Your task to perform on an android device: Search for seafood restaurants on Google Maps Image 0: 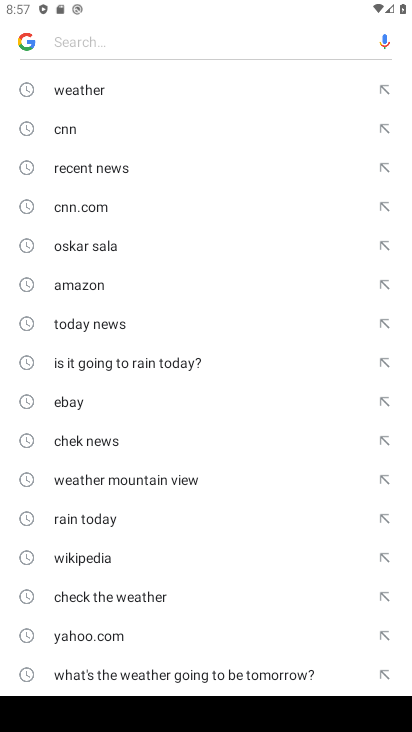
Step 0: press back button
Your task to perform on an android device: Search for seafood restaurants on Google Maps Image 1: 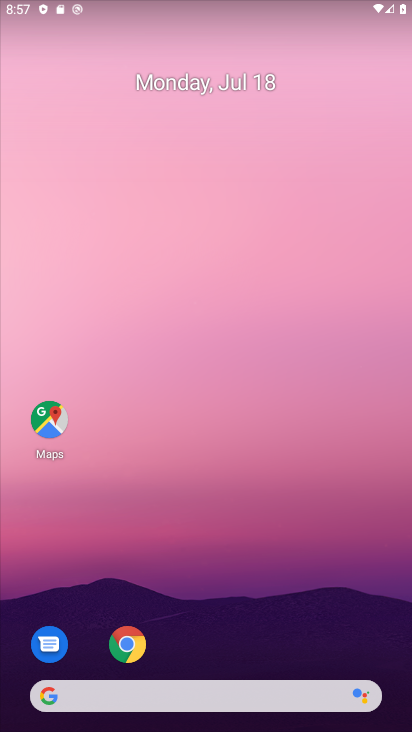
Step 1: click (49, 420)
Your task to perform on an android device: Search for seafood restaurants on Google Maps Image 2: 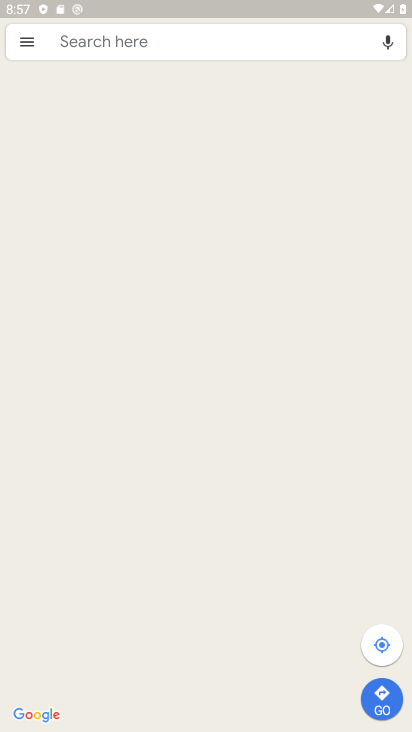
Step 2: click (133, 43)
Your task to perform on an android device: Search for seafood restaurants on Google Maps Image 3: 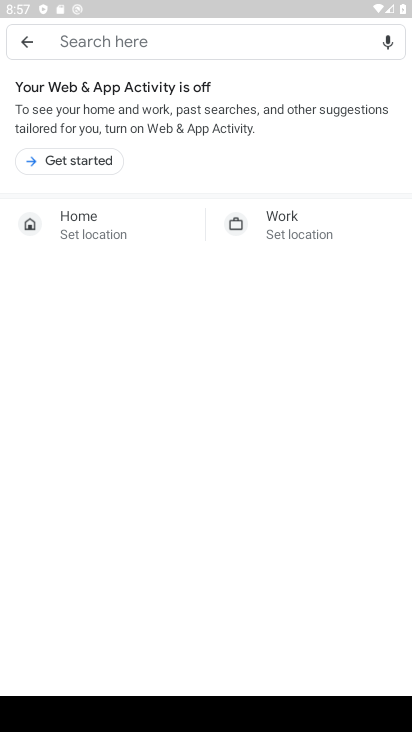
Step 3: click (125, 34)
Your task to perform on an android device: Search for seafood restaurants on Google Maps Image 4: 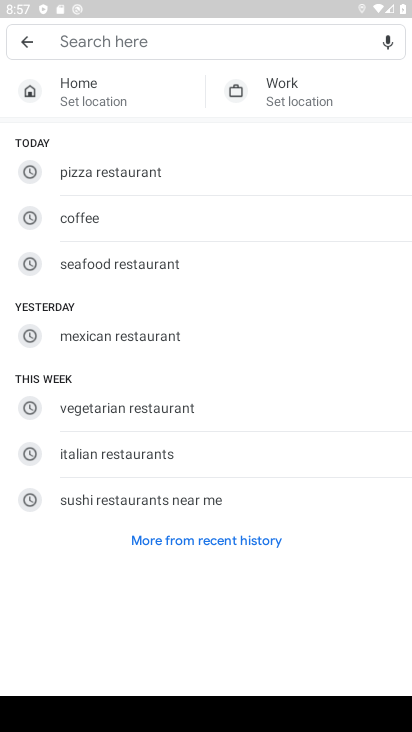
Step 4: type "seafood restau"
Your task to perform on an android device: Search for seafood restaurants on Google Maps Image 5: 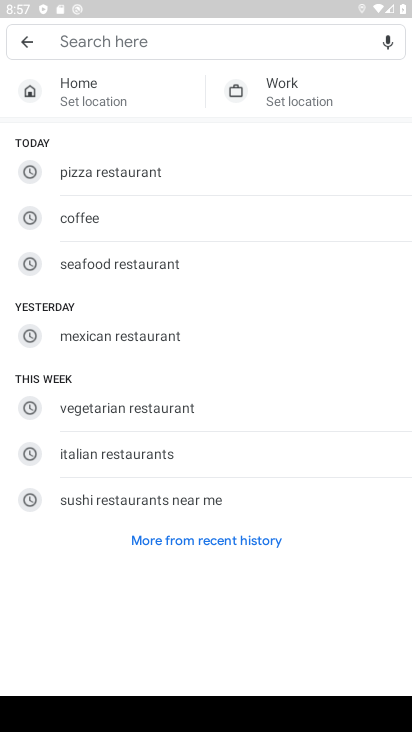
Step 5: click (101, 271)
Your task to perform on an android device: Search for seafood restaurants on Google Maps Image 6: 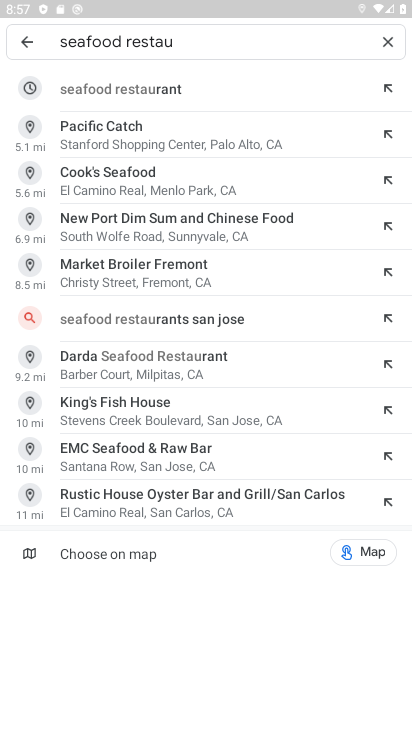
Step 6: click (101, 97)
Your task to perform on an android device: Search for seafood restaurants on Google Maps Image 7: 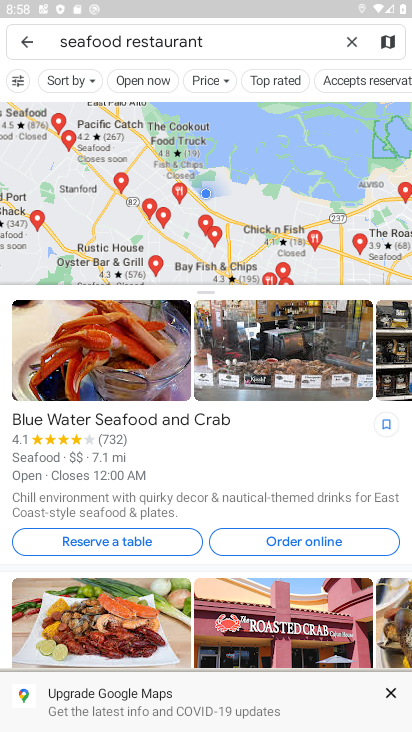
Step 7: task complete